Your task to perform on an android device: turn off sleep mode Image 0: 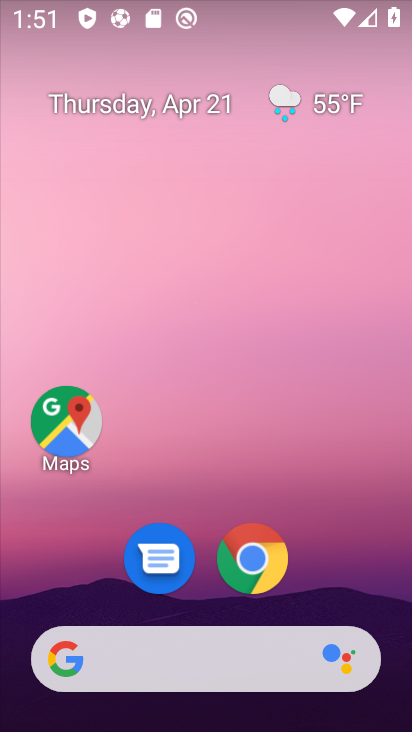
Step 0: drag from (182, 532) to (267, 70)
Your task to perform on an android device: turn off sleep mode Image 1: 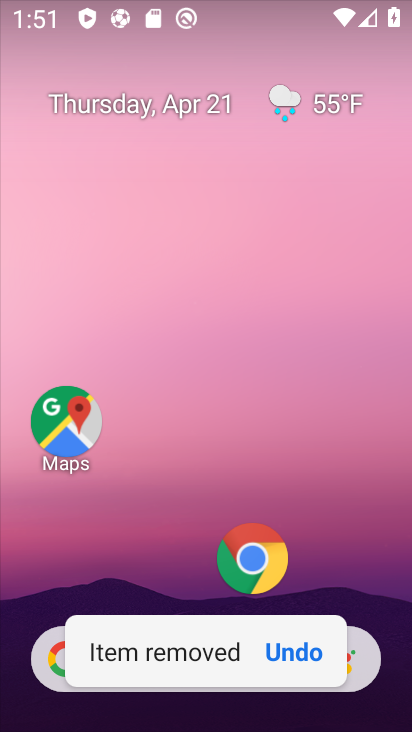
Step 1: drag from (128, 596) to (229, 86)
Your task to perform on an android device: turn off sleep mode Image 2: 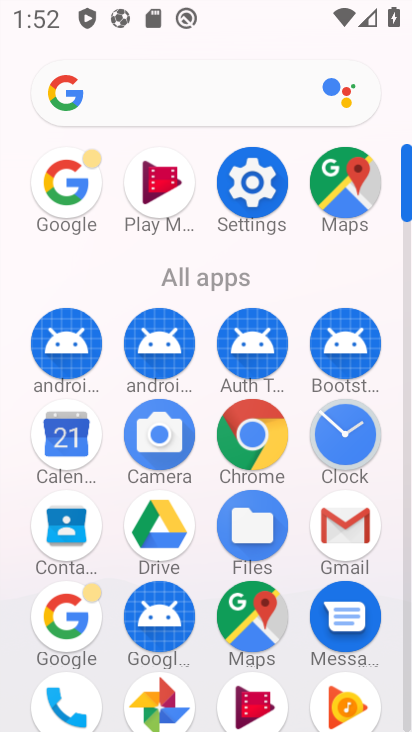
Step 2: drag from (257, 599) to (289, 388)
Your task to perform on an android device: turn off sleep mode Image 3: 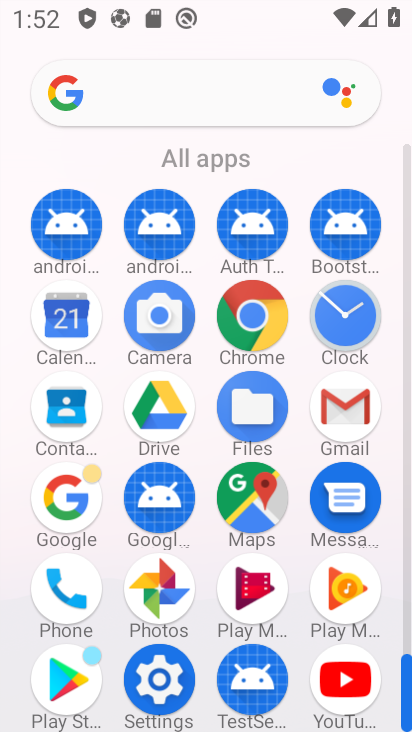
Step 3: click (155, 672)
Your task to perform on an android device: turn off sleep mode Image 4: 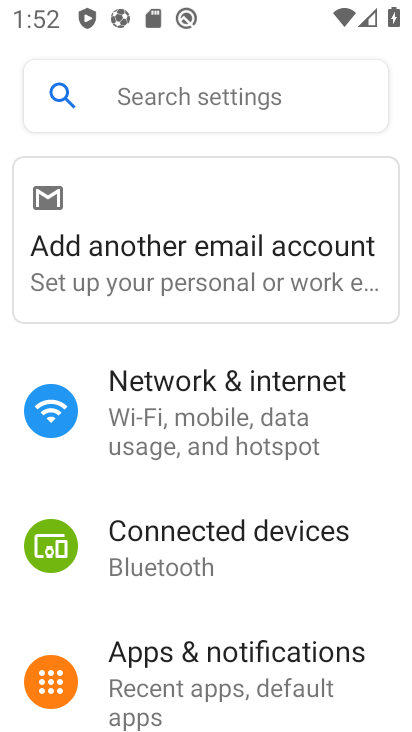
Step 4: drag from (209, 653) to (316, 283)
Your task to perform on an android device: turn off sleep mode Image 5: 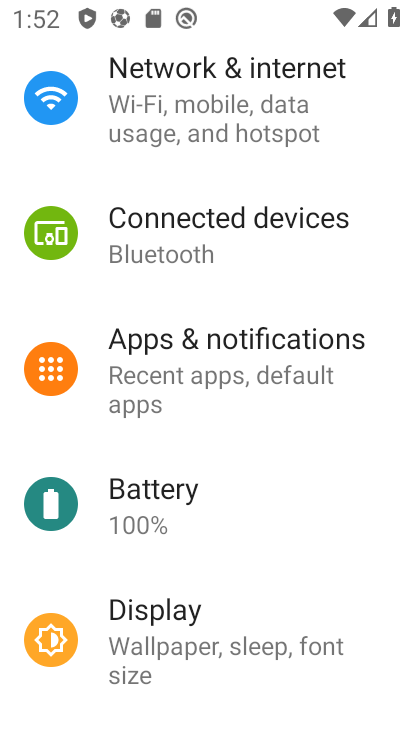
Step 5: click (182, 645)
Your task to perform on an android device: turn off sleep mode Image 6: 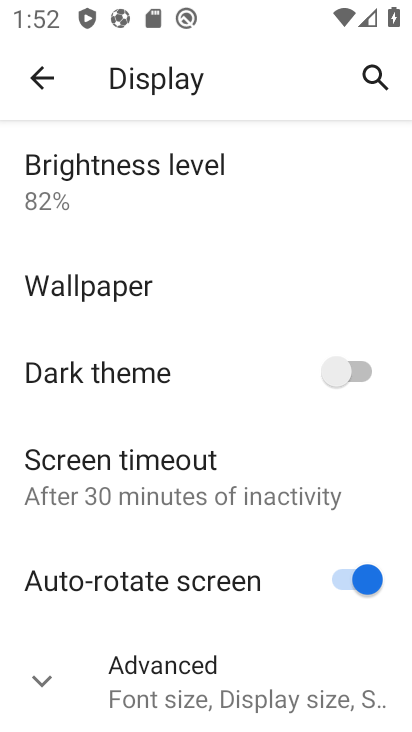
Step 6: click (196, 663)
Your task to perform on an android device: turn off sleep mode Image 7: 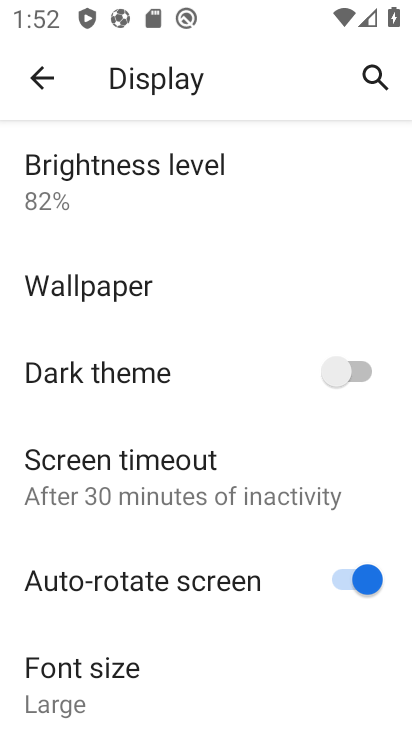
Step 7: task complete